Your task to perform on an android device: Open Android settings Image 0: 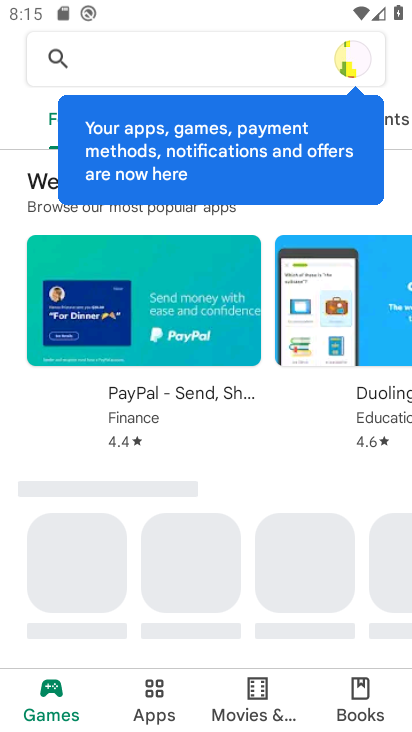
Step 0: press back button
Your task to perform on an android device: Open Android settings Image 1: 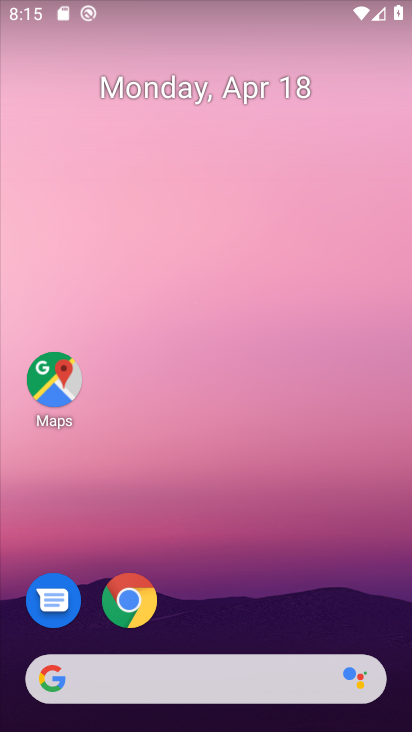
Step 1: drag from (340, 549) to (226, 35)
Your task to perform on an android device: Open Android settings Image 2: 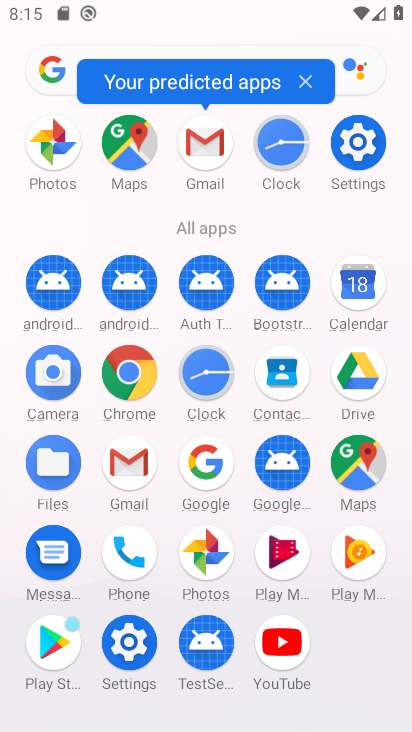
Step 2: click (360, 141)
Your task to perform on an android device: Open Android settings Image 3: 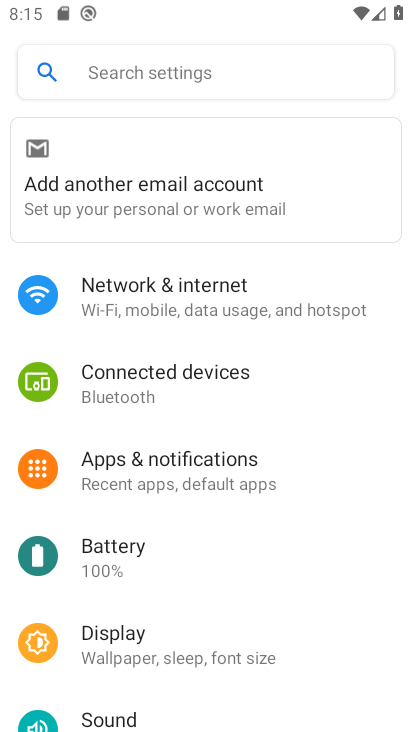
Step 3: task complete